Your task to perform on an android device: turn off priority inbox in the gmail app Image 0: 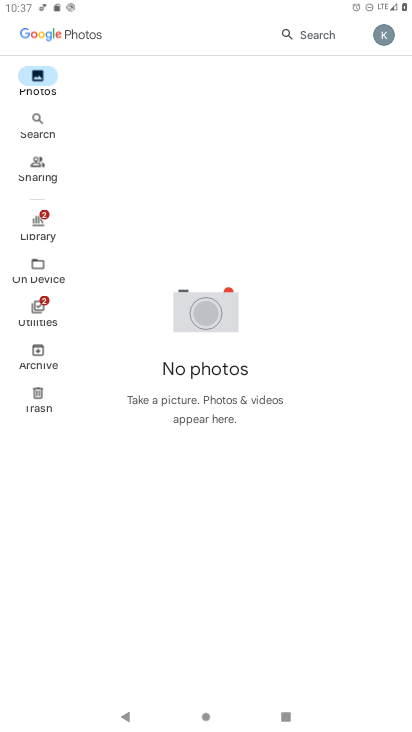
Step 0: press home button
Your task to perform on an android device: turn off priority inbox in the gmail app Image 1: 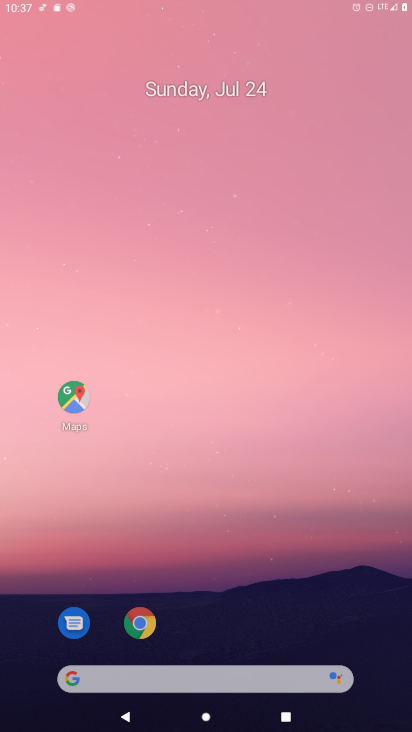
Step 1: drag from (368, 680) to (258, 10)
Your task to perform on an android device: turn off priority inbox in the gmail app Image 2: 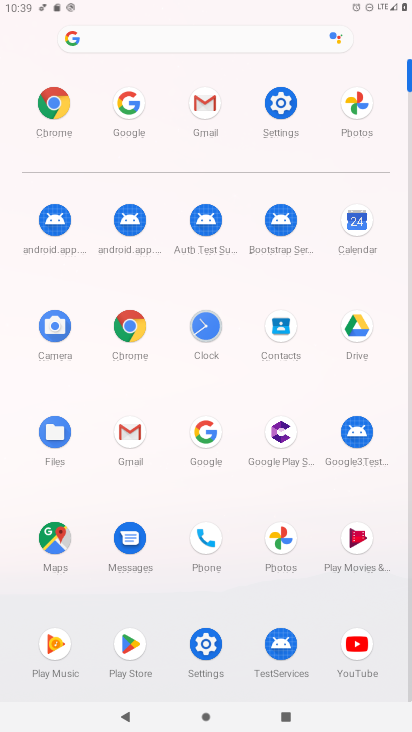
Step 2: click (131, 437)
Your task to perform on an android device: turn off priority inbox in the gmail app Image 3: 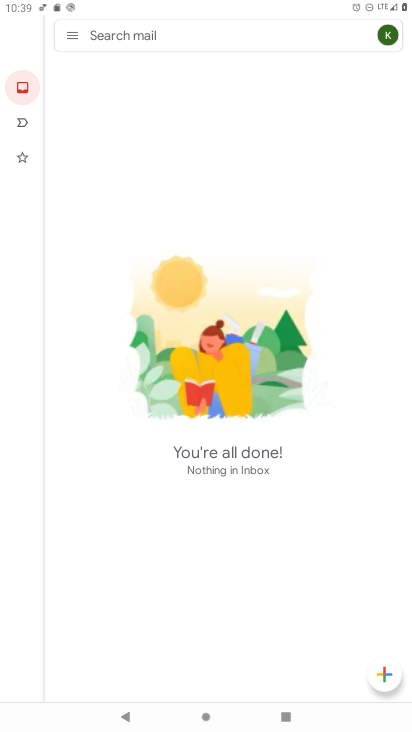
Step 3: click (71, 34)
Your task to perform on an android device: turn off priority inbox in the gmail app Image 4: 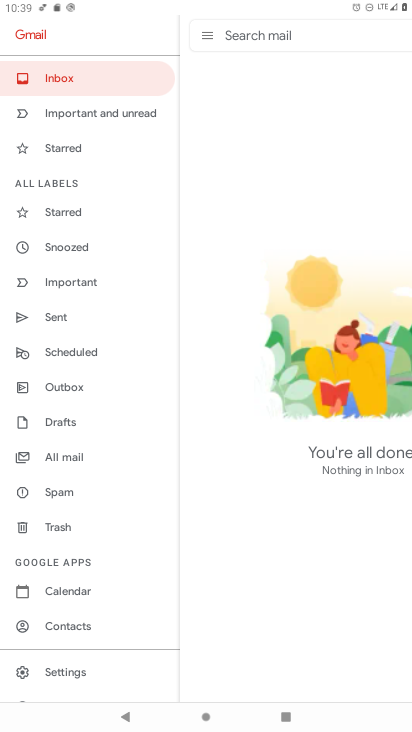
Step 4: click (100, 671)
Your task to perform on an android device: turn off priority inbox in the gmail app Image 5: 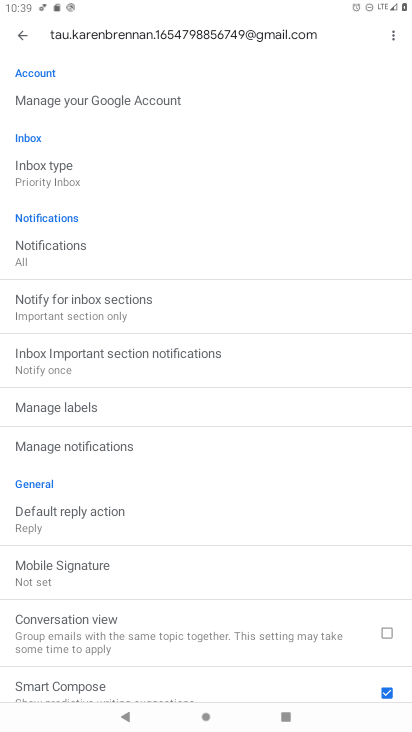
Step 5: click (53, 180)
Your task to perform on an android device: turn off priority inbox in the gmail app Image 6: 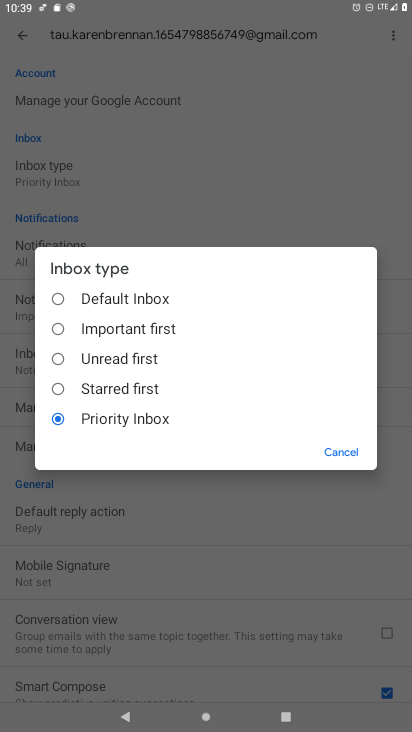
Step 6: click (86, 296)
Your task to perform on an android device: turn off priority inbox in the gmail app Image 7: 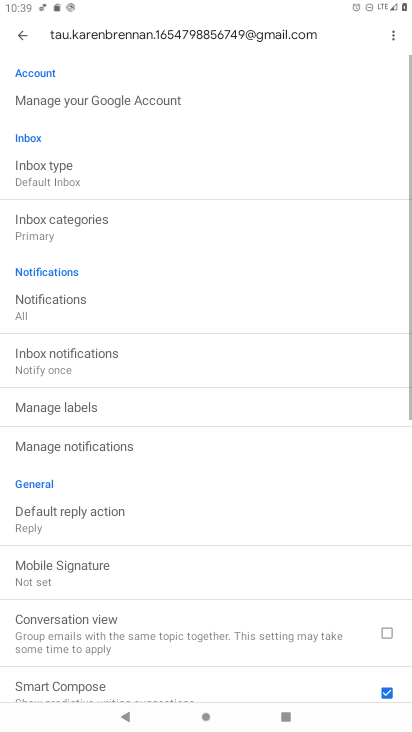
Step 7: task complete